Your task to perform on an android device: turn on showing notifications on the lock screen Image 0: 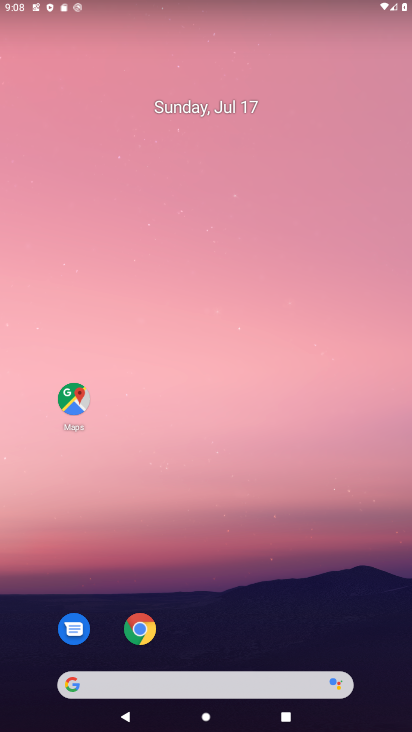
Step 0: drag from (220, 600) to (250, 49)
Your task to perform on an android device: turn on showing notifications on the lock screen Image 1: 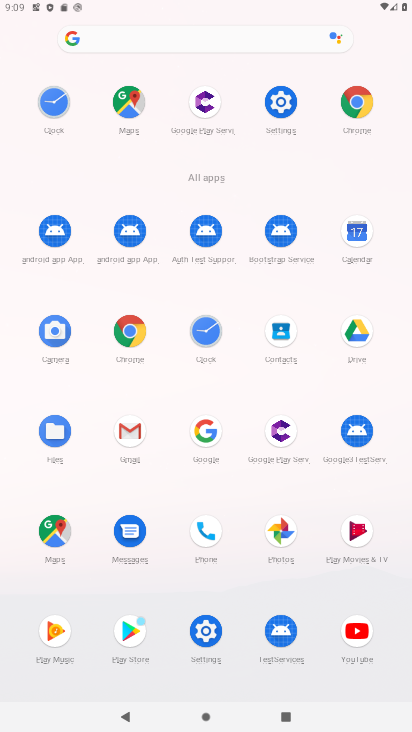
Step 1: click (209, 638)
Your task to perform on an android device: turn on showing notifications on the lock screen Image 2: 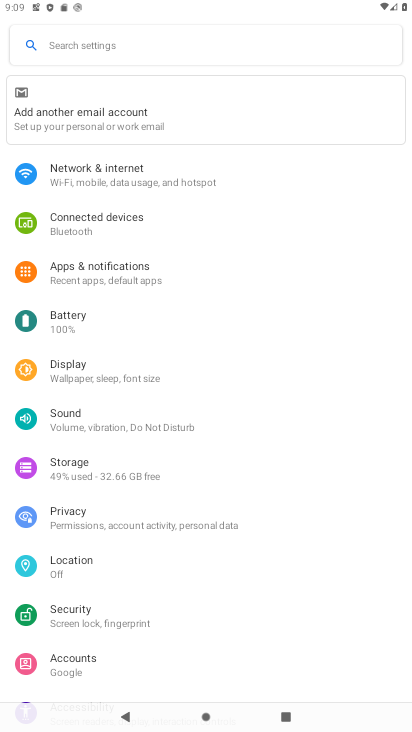
Step 2: click (133, 271)
Your task to perform on an android device: turn on showing notifications on the lock screen Image 3: 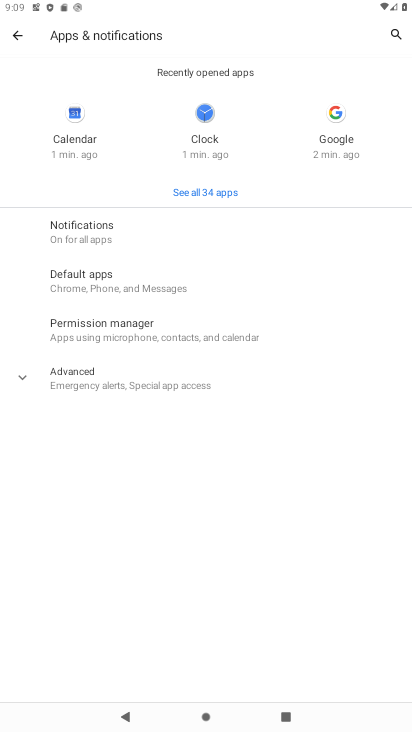
Step 3: click (108, 240)
Your task to perform on an android device: turn on showing notifications on the lock screen Image 4: 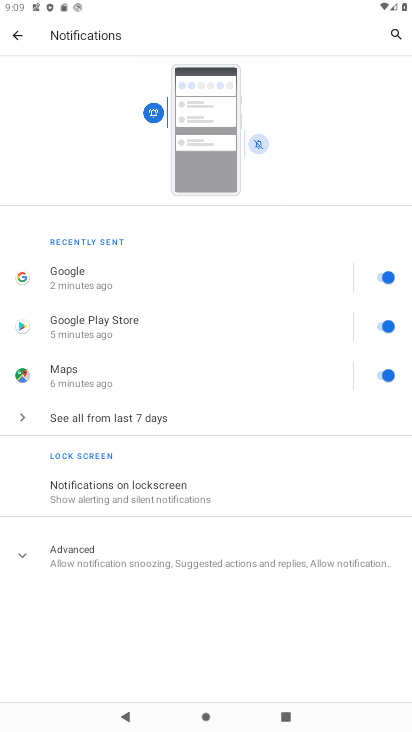
Step 4: click (188, 497)
Your task to perform on an android device: turn on showing notifications on the lock screen Image 5: 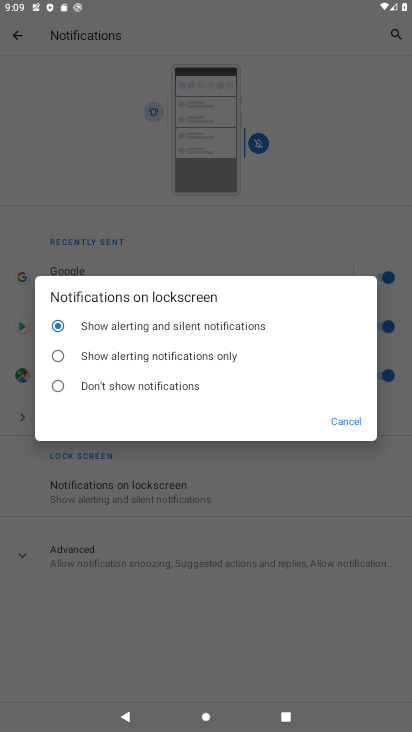
Step 5: task complete